Your task to perform on an android device: clear history in the chrome app Image 0: 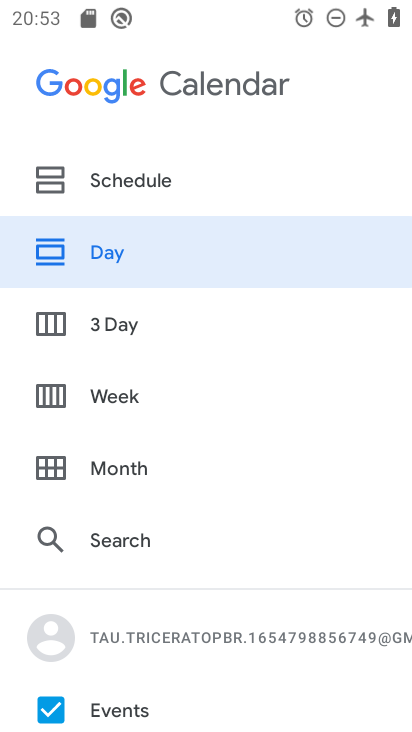
Step 0: press home button
Your task to perform on an android device: clear history in the chrome app Image 1: 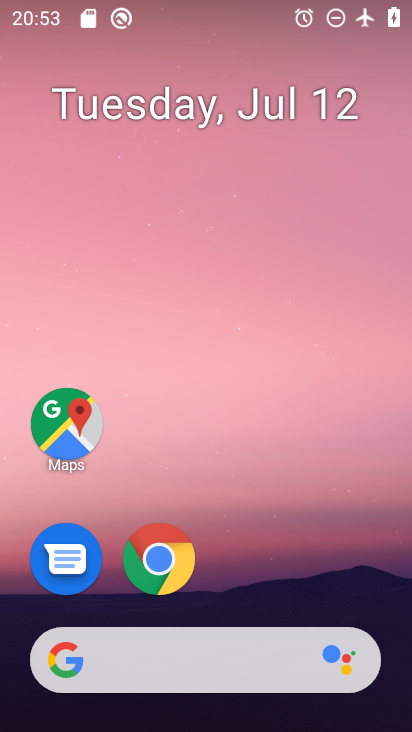
Step 1: drag from (379, 597) to (359, 156)
Your task to perform on an android device: clear history in the chrome app Image 2: 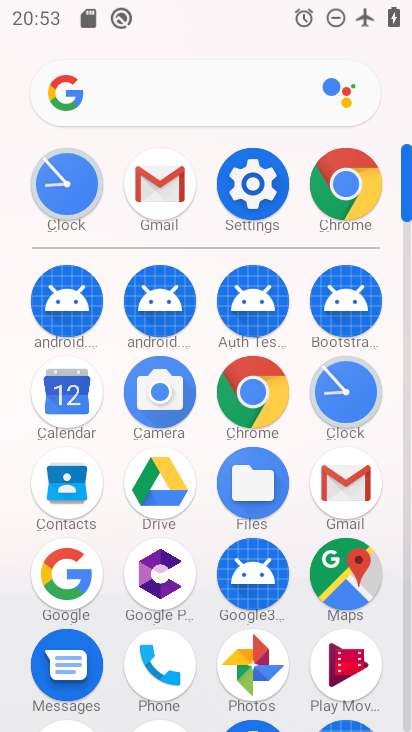
Step 2: click (248, 403)
Your task to perform on an android device: clear history in the chrome app Image 3: 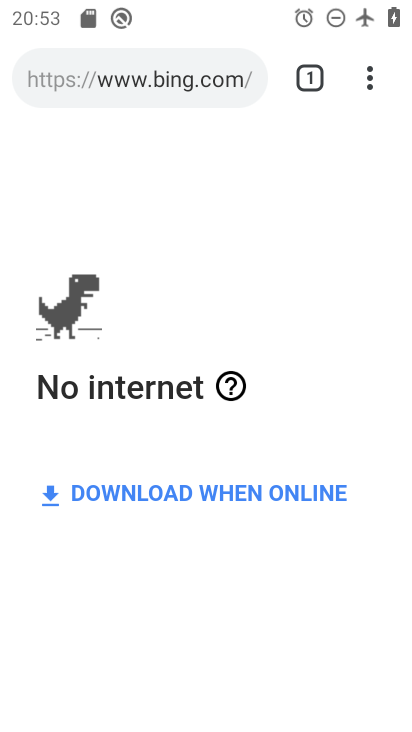
Step 3: click (370, 81)
Your task to perform on an android device: clear history in the chrome app Image 4: 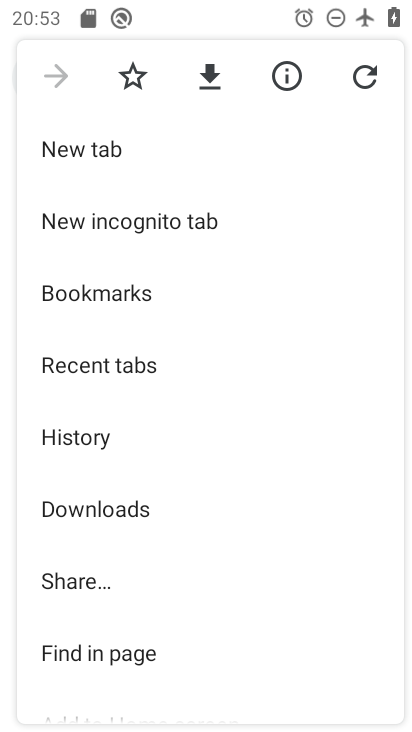
Step 4: drag from (352, 419) to (346, 184)
Your task to perform on an android device: clear history in the chrome app Image 5: 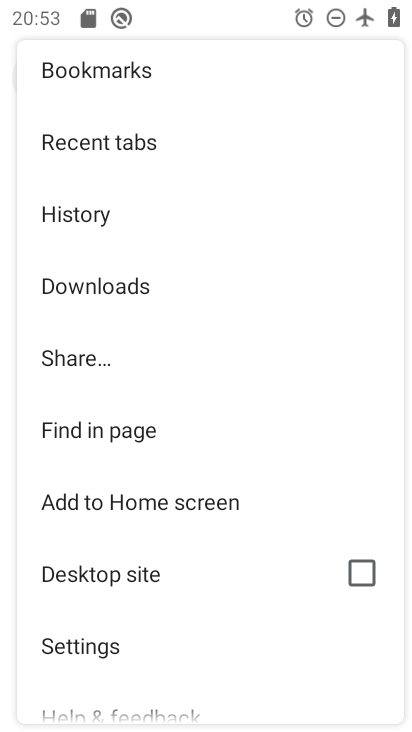
Step 5: click (135, 215)
Your task to perform on an android device: clear history in the chrome app Image 6: 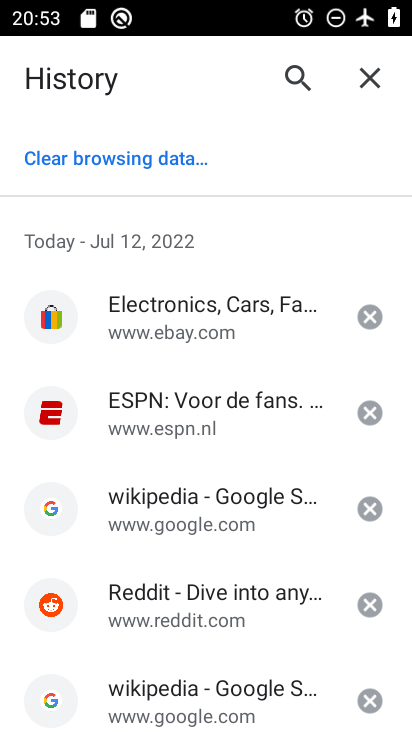
Step 6: click (161, 159)
Your task to perform on an android device: clear history in the chrome app Image 7: 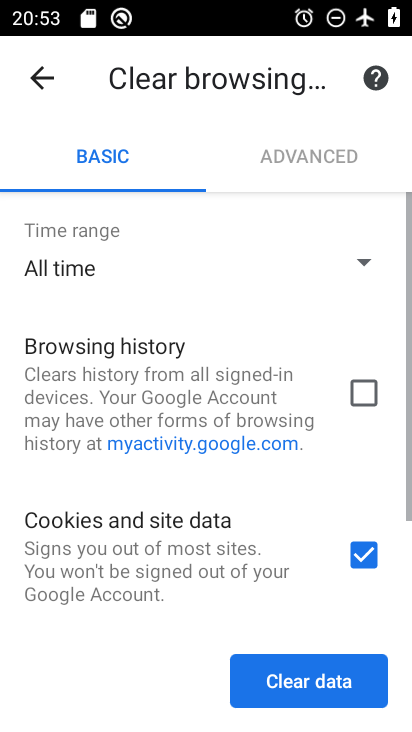
Step 7: click (364, 391)
Your task to perform on an android device: clear history in the chrome app Image 8: 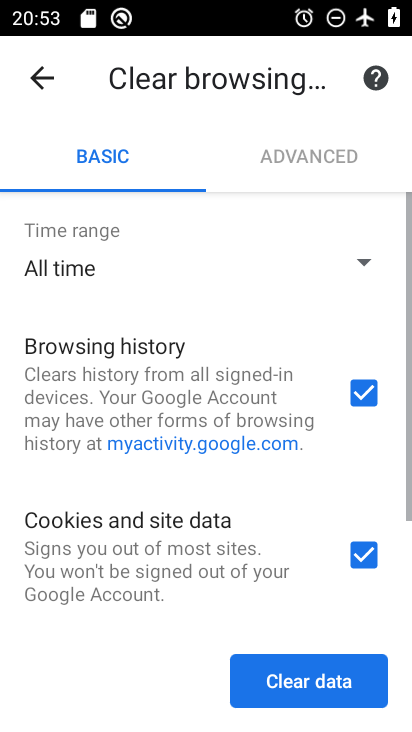
Step 8: drag from (309, 498) to (302, 287)
Your task to perform on an android device: clear history in the chrome app Image 9: 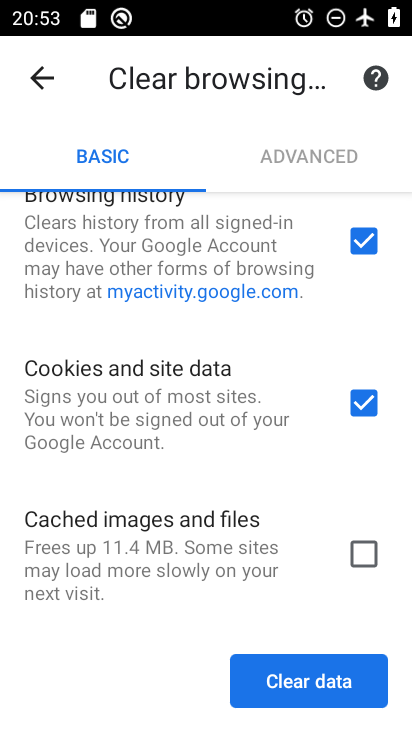
Step 9: click (354, 548)
Your task to perform on an android device: clear history in the chrome app Image 10: 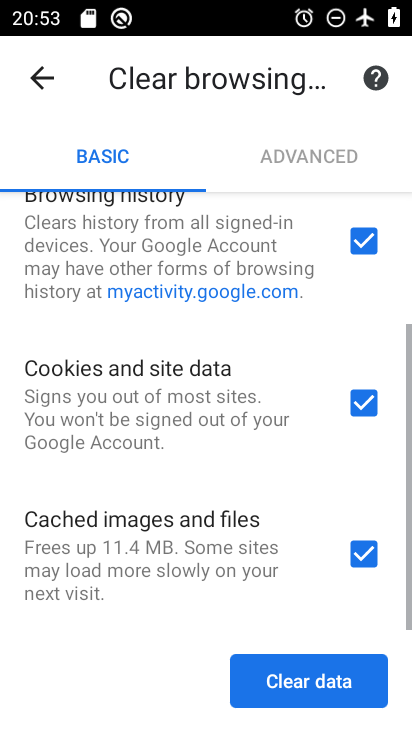
Step 10: click (324, 685)
Your task to perform on an android device: clear history in the chrome app Image 11: 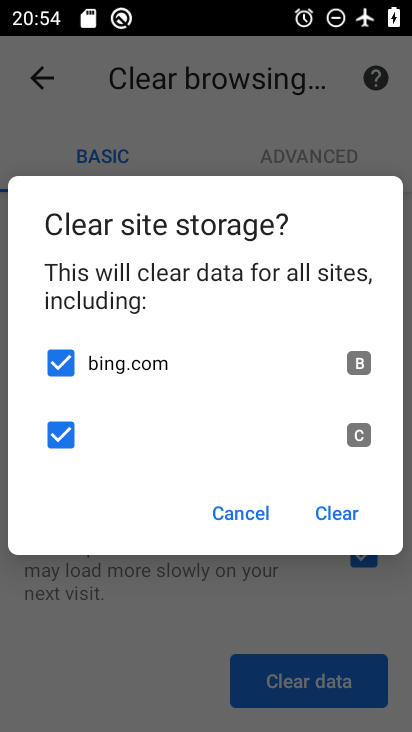
Step 11: click (335, 512)
Your task to perform on an android device: clear history in the chrome app Image 12: 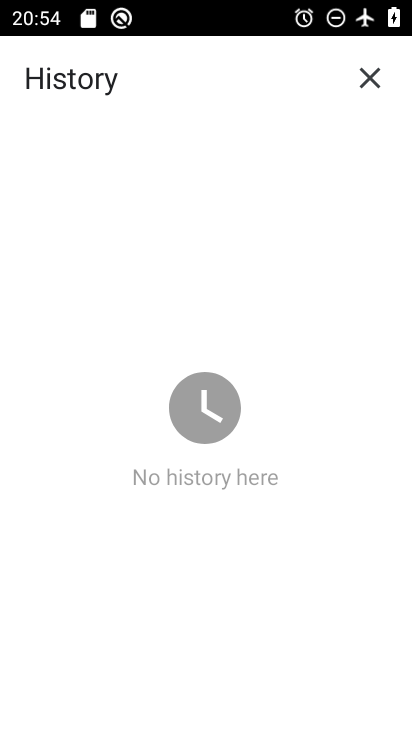
Step 12: task complete